Your task to perform on an android device: Search for hotels in Chicago Image 0: 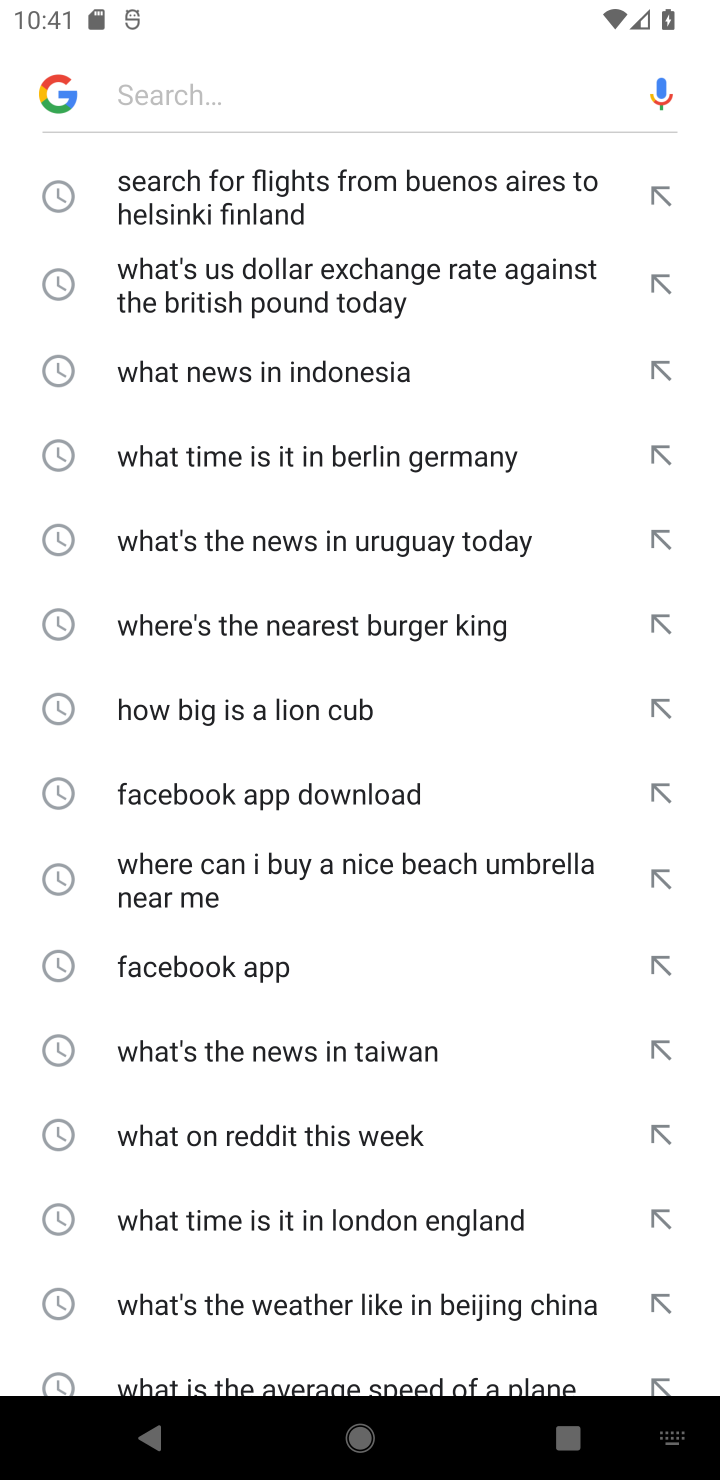
Step 0: press home button
Your task to perform on an android device: Search for hotels in Chicago Image 1: 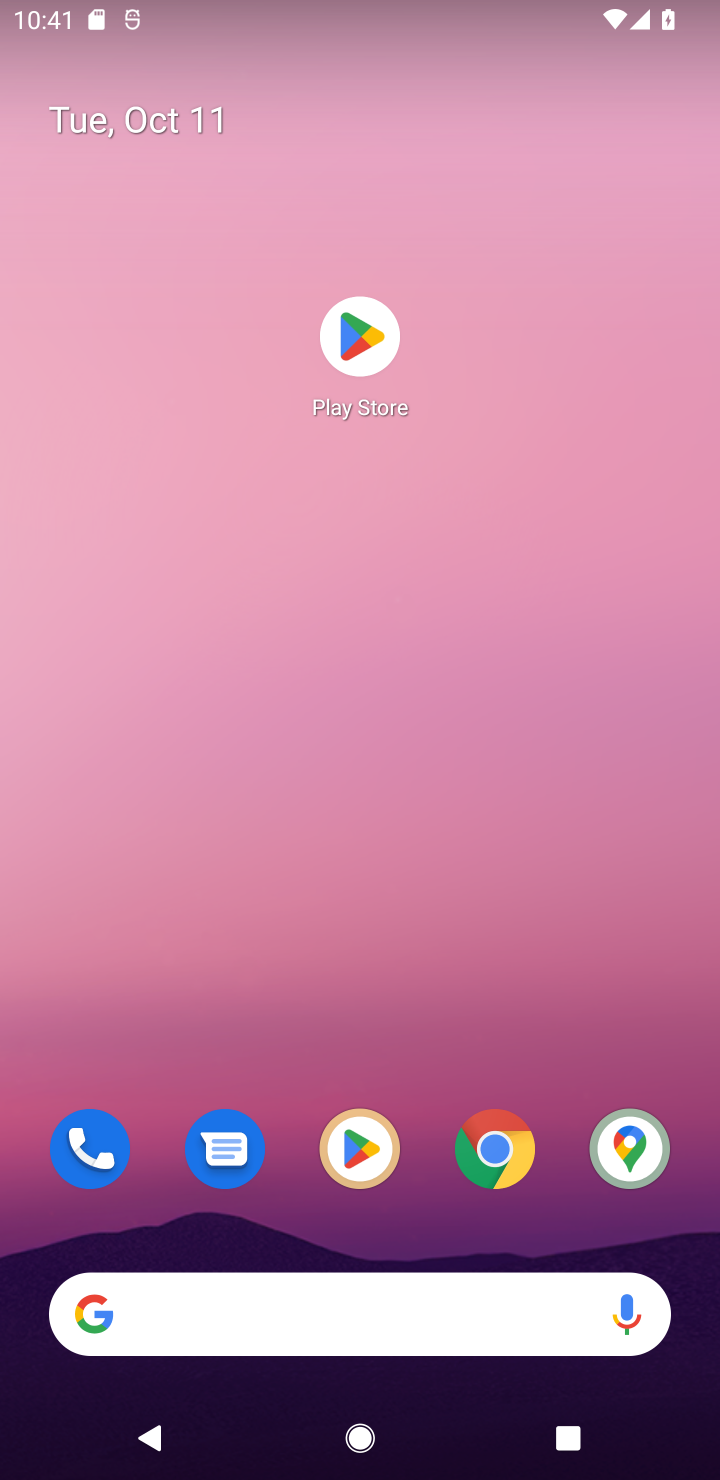
Step 1: click (343, 1313)
Your task to perform on an android device: Search for hotels in Chicago Image 2: 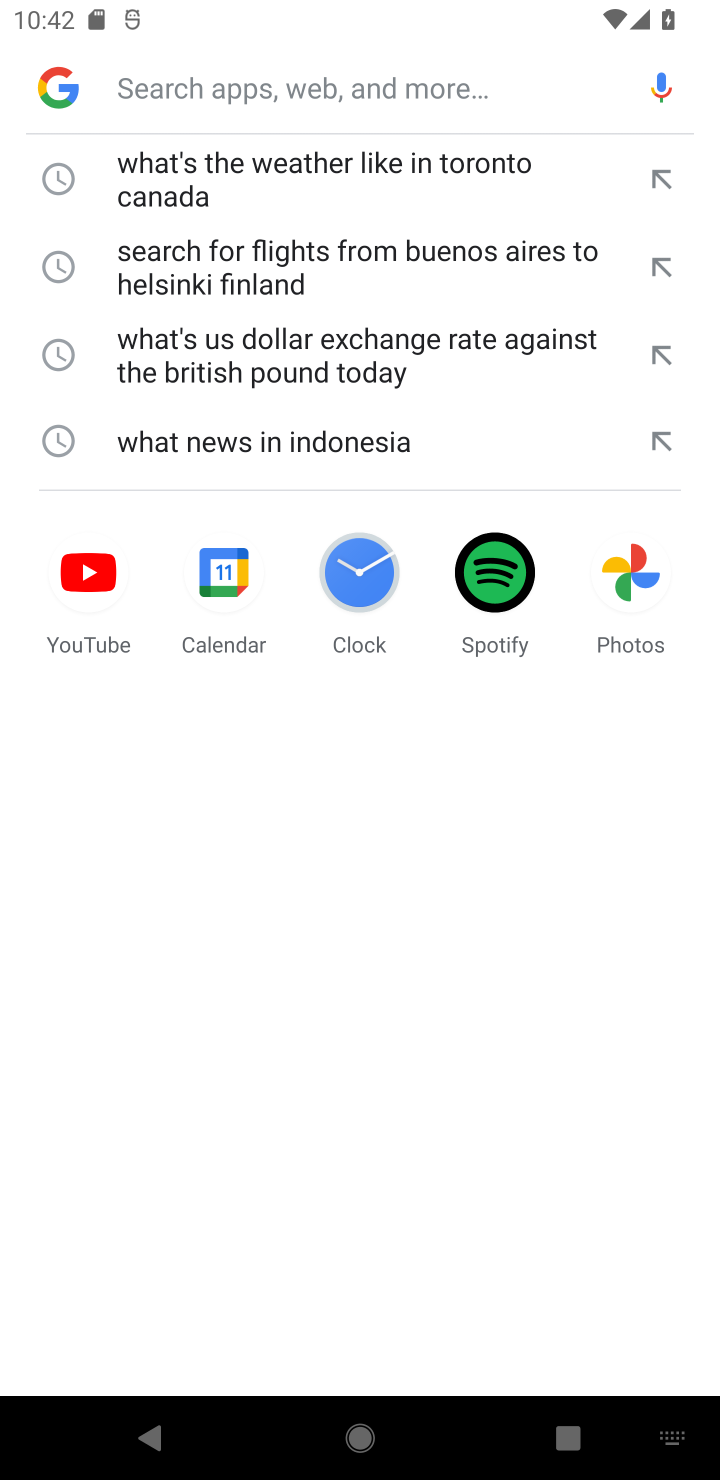
Step 2: type "hotels in Chicago"
Your task to perform on an android device: Search for hotels in Chicago Image 3: 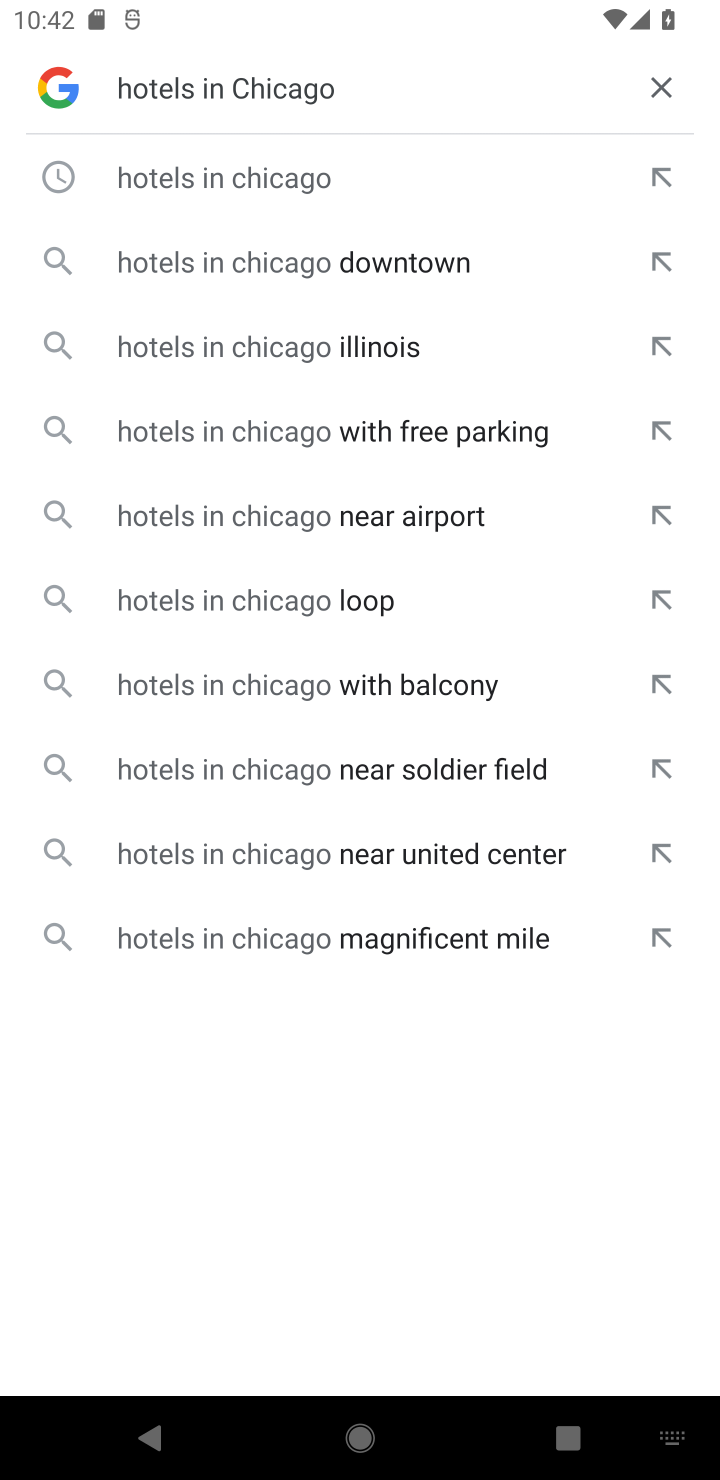
Step 3: click (178, 195)
Your task to perform on an android device: Search for hotels in Chicago Image 4: 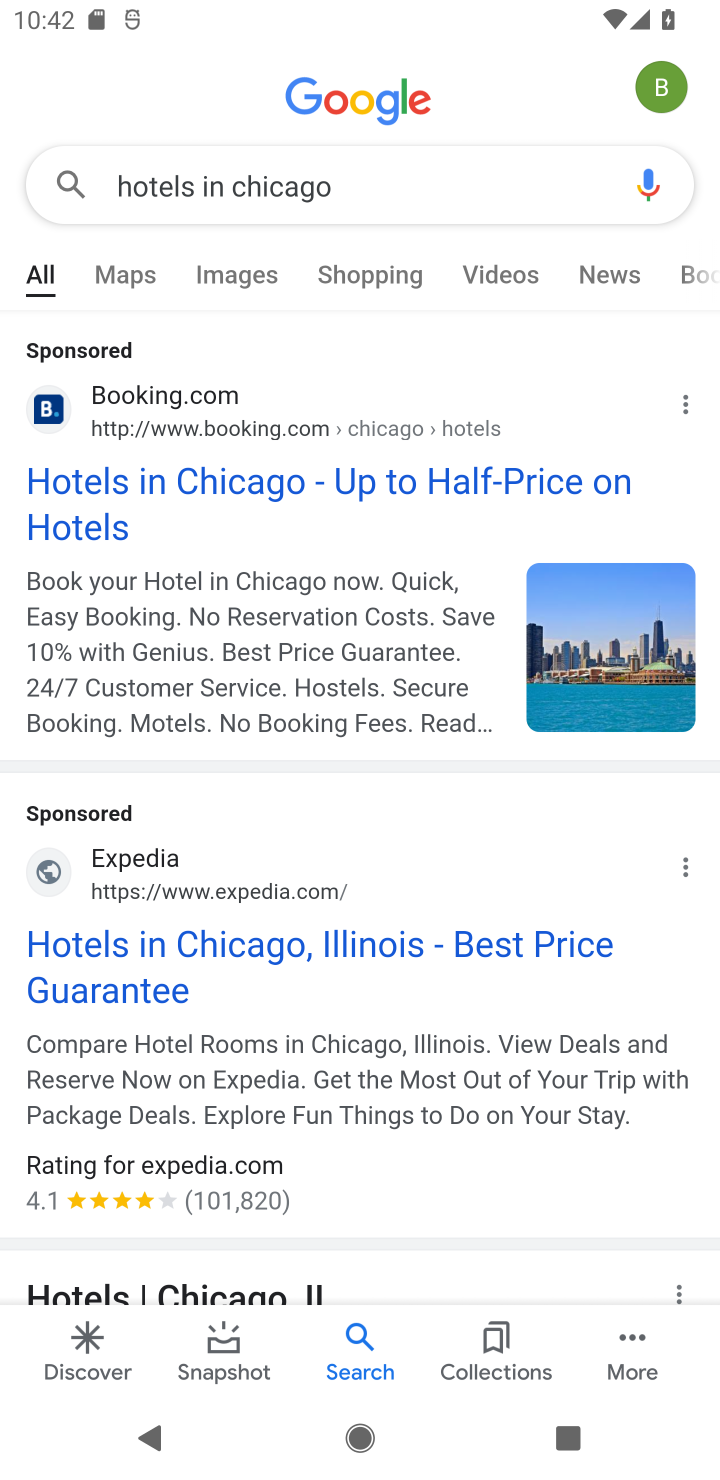
Step 4: task complete